Your task to perform on an android device: turn off data saver in the chrome app Image 0: 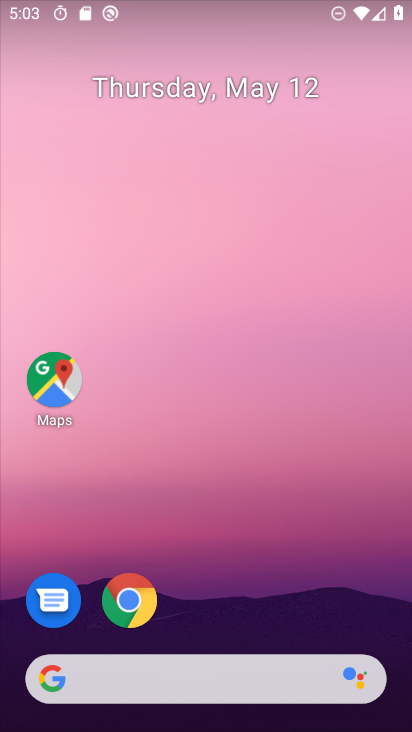
Step 0: drag from (187, 633) to (264, 134)
Your task to perform on an android device: turn off data saver in the chrome app Image 1: 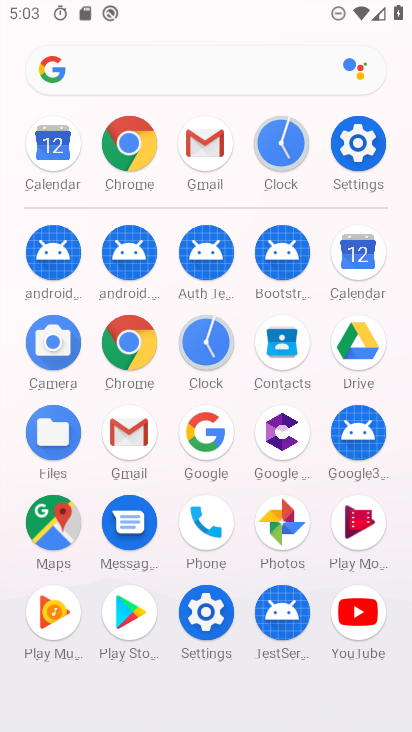
Step 1: click (129, 353)
Your task to perform on an android device: turn off data saver in the chrome app Image 2: 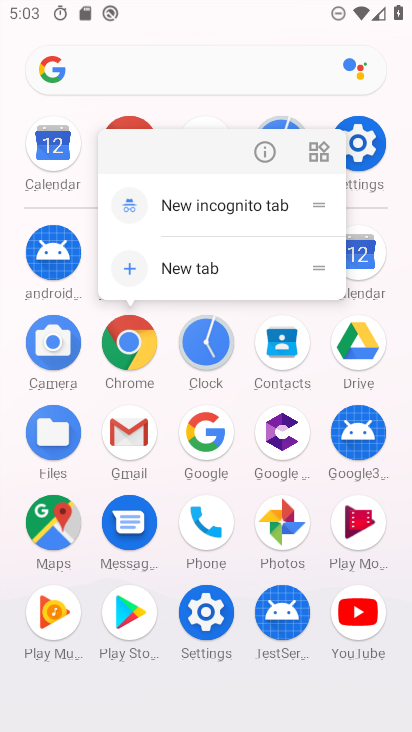
Step 2: click (255, 159)
Your task to perform on an android device: turn off data saver in the chrome app Image 3: 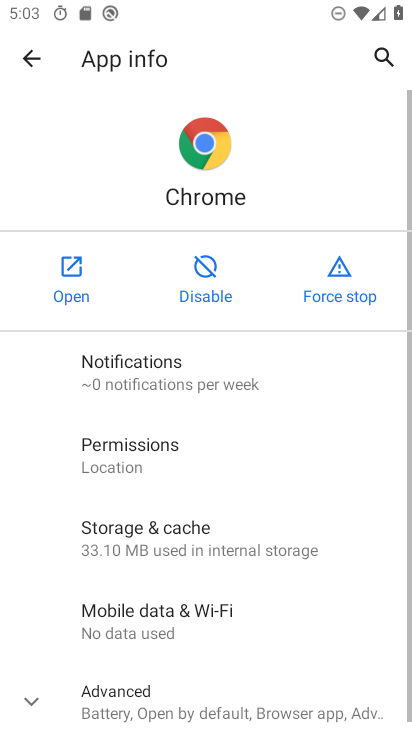
Step 3: click (98, 265)
Your task to perform on an android device: turn off data saver in the chrome app Image 4: 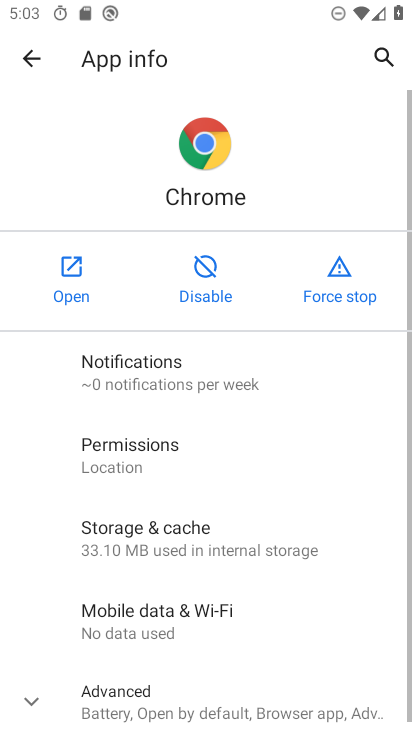
Step 4: click (98, 265)
Your task to perform on an android device: turn off data saver in the chrome app Image 5: 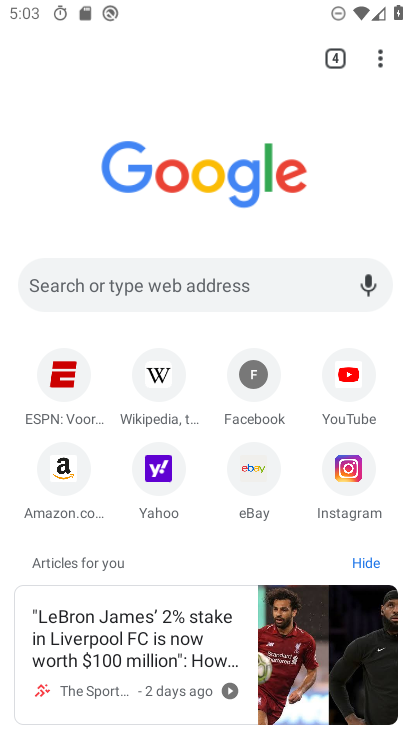
Step 5: drag from (182, 614) to (272, 281)
Your task to perform on an android device: turn off data saver in the chrome app Image 6: 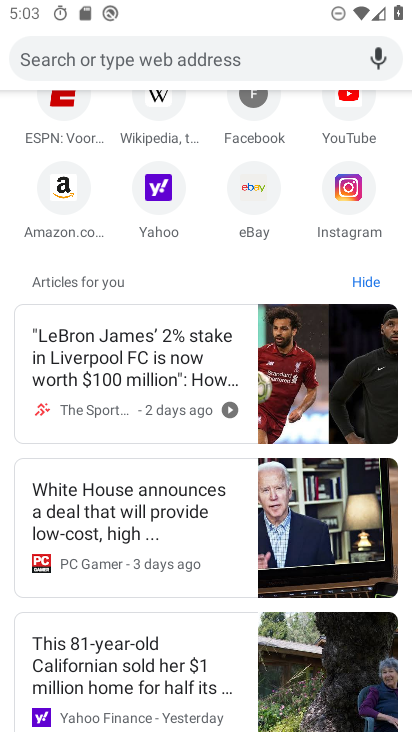
Step 6: drag from (276, 260) to (304, 668)
Your task to perform on an android device: turn off data saver in the chrome app Image 7: 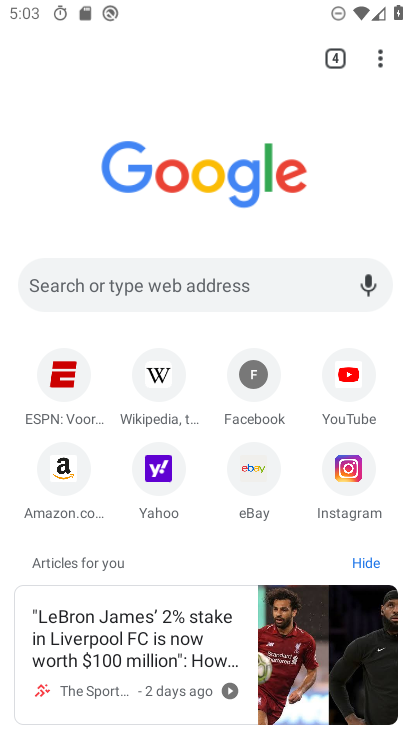
Step 7: drag from (378, 66) to (203, 494)
Your task to perform on an android device: turn off data saver in the chrome app Image 8: 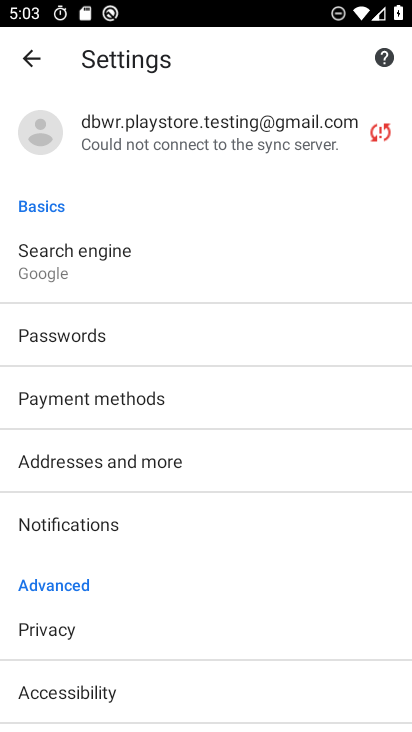
Step 8: drag from (180, 491) to (183, 230)
Your task to perform on an android device: turn off data saver in the chrome app Image 9: 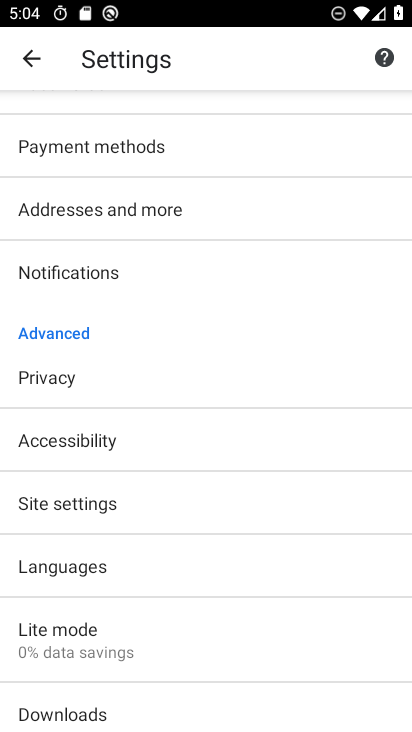
Step 9: click (119, 627)
Your task to perform on an android device: turn off data saver in the chrome app Image 10: 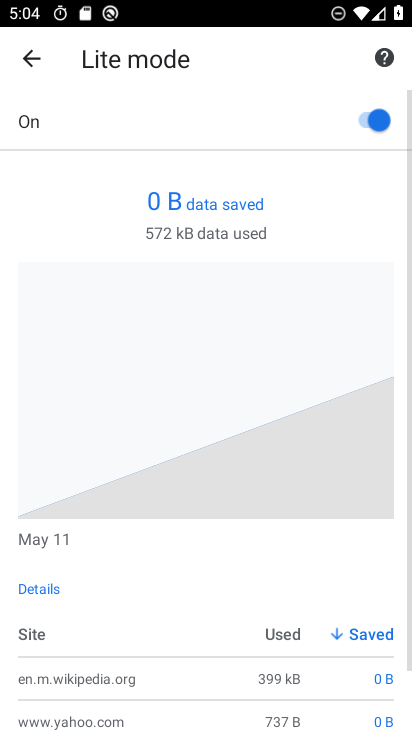
Step 10: click (375, 123)
Your task to perform on an android device: turn off data saver in the chrome app Image 11: 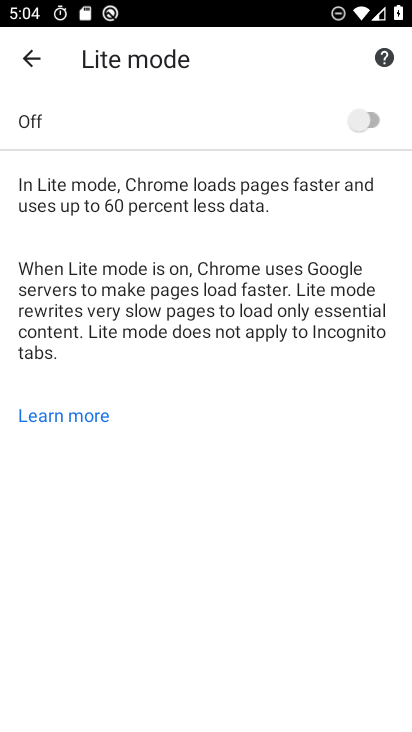
Step 11: task complete